Your task to perform on an android device: Open the calendar app, open the side menu, and click the "Day" option Image 0: 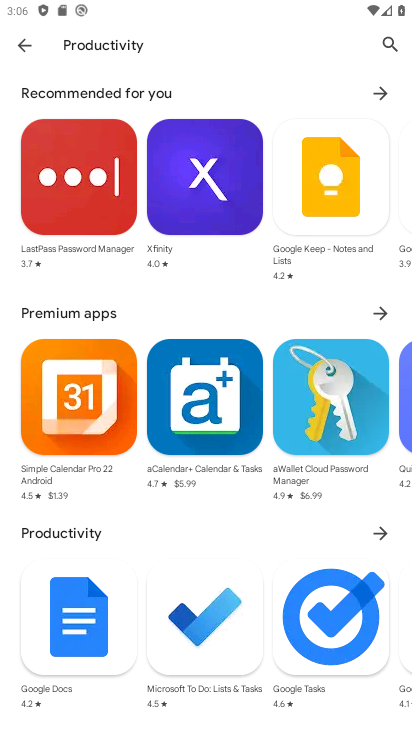
Step 0: press home button
Your task to perform on an android device: Open the calendar app, open the side menu, and click the "Day" option Image 1: 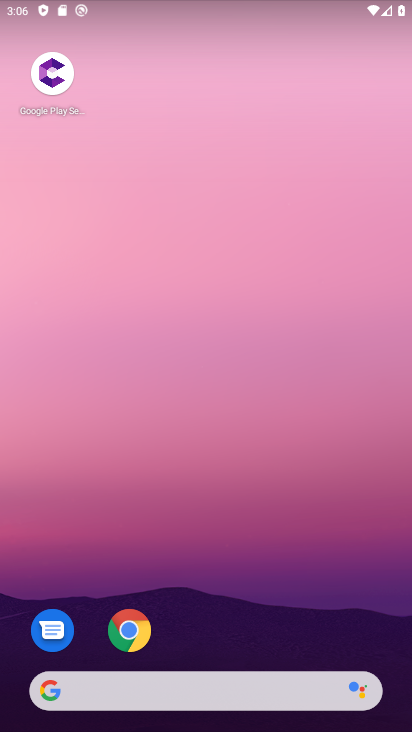
Step 1: drag from (210, 649) to (241, 151)
Your task to perform on an android device: Open the calendar app, open the side menu, and click the "Day" option Image 2: 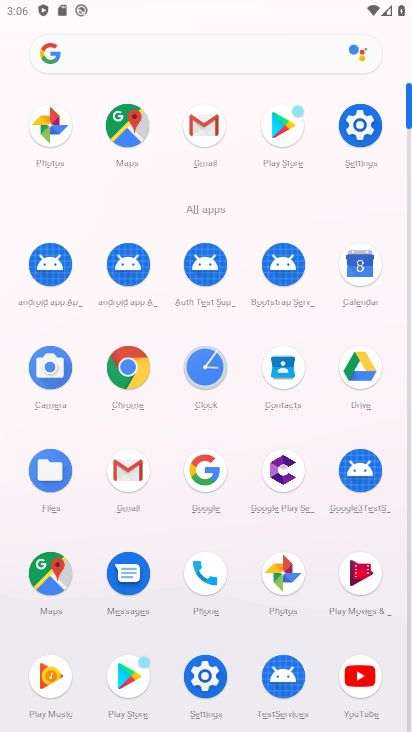
Step 2: click (357, 264)
Your task to perform on an android device: Open the calendar app, open the side menu, and click the "Day" option Image 3: 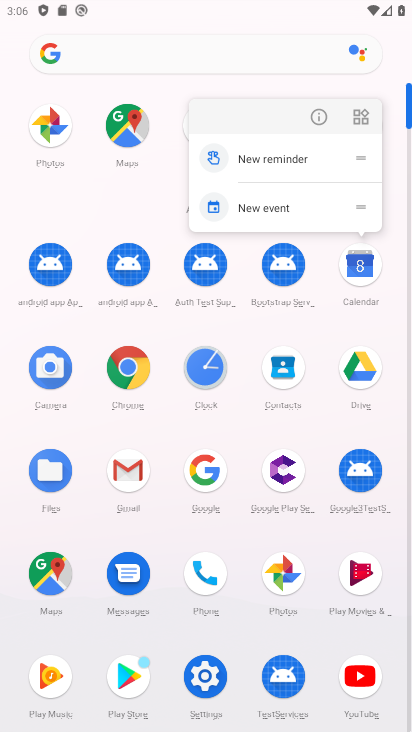
Step 3: click (356, 264)
Your task to perform on an android device: Open the calendar app, open the side menu, and click the "Day" option Image 4: 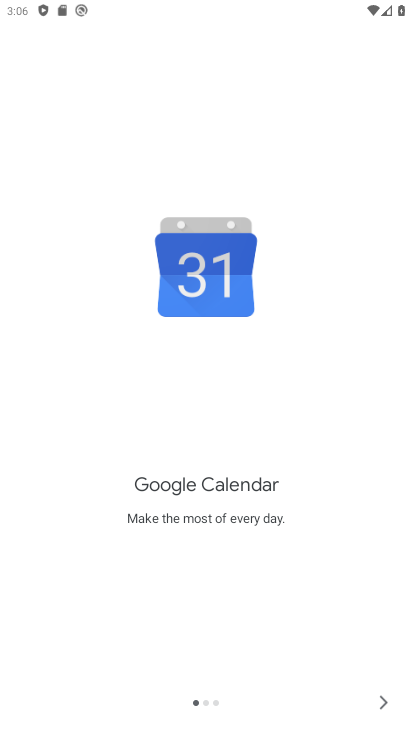
Step 4: click (384, 700)
Your task to perform on an android device: Open the calendar app, open the side menu, and click the "Day" option Image 5: 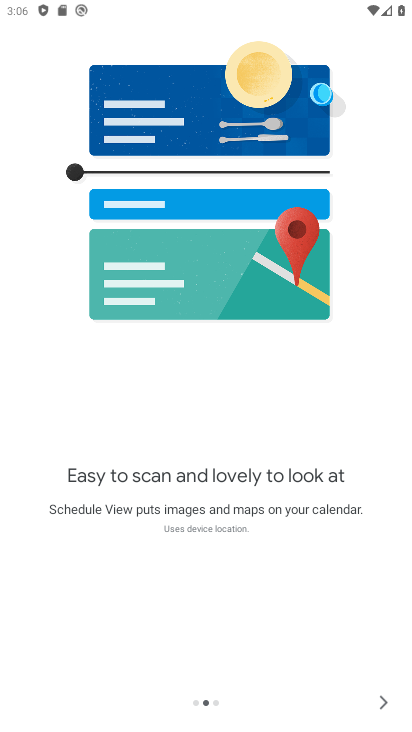
Step 5: click (384, 700)
Your task to perform on an android device: Open the calendar app, open the side menu, and click the "Day" option Image 6: 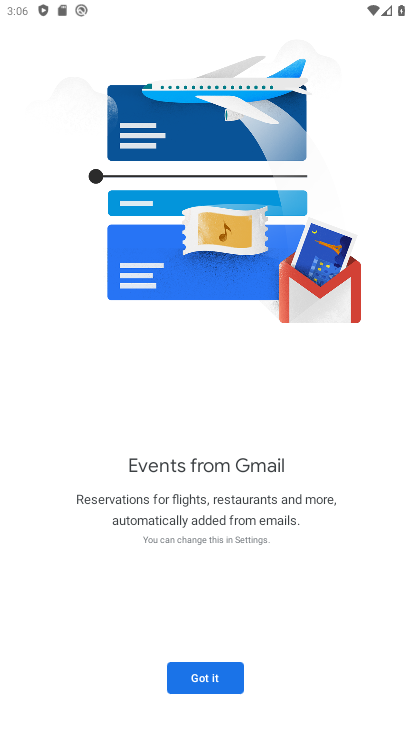
Step 6: click (194, 672)
Your task to perform on an android device: Open the calendar app, open the side menu, and click the "Day" option Image 7: 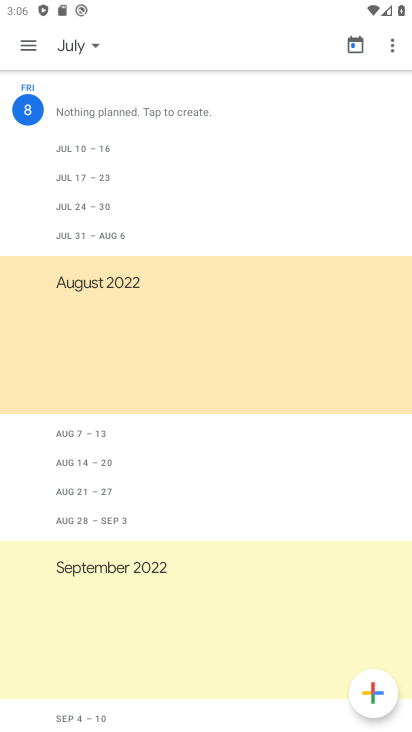
Step 7: click (27, 49)
Your task to perform on an android device: Open the calendar app, open the side menu, and click the "Day" option Image 8: 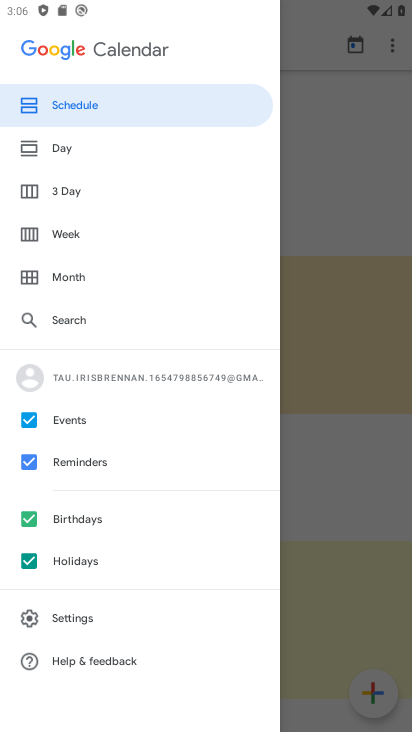
Step 8: click (56, 142)
Your task to perform on an android device: Open the calendar app, open the side menu, and click the "Day" option Image 9: 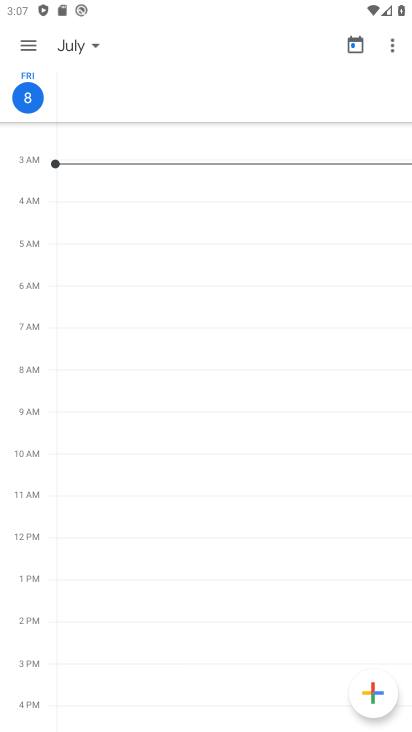
Step 9: task complete